Your task to perform on an android device: Is it going to rain today? Image 0: 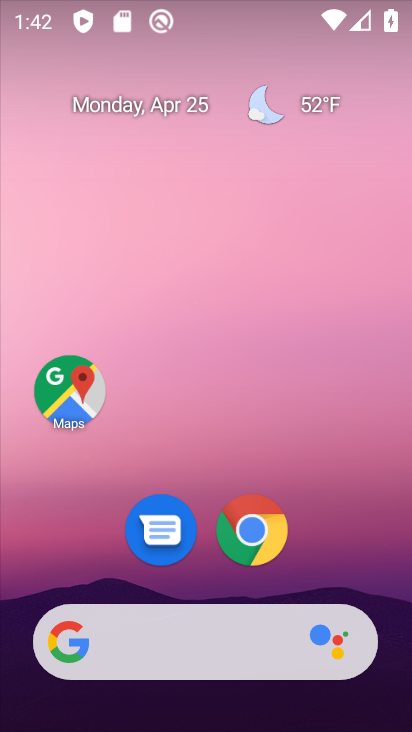
Step 0: drag from (372, 524) to (367, 106)
Your task to perform on an android device: Is it going to rain today? Image 1: 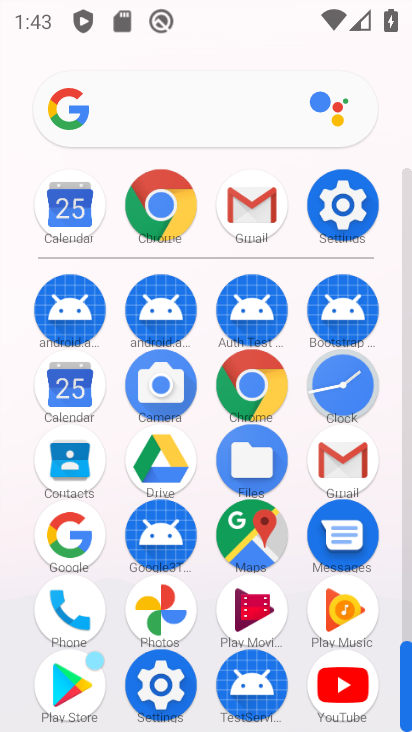
Step 1: click (240, 410)
Your task to perform on an android device: Is it going to rain today? Image 2: 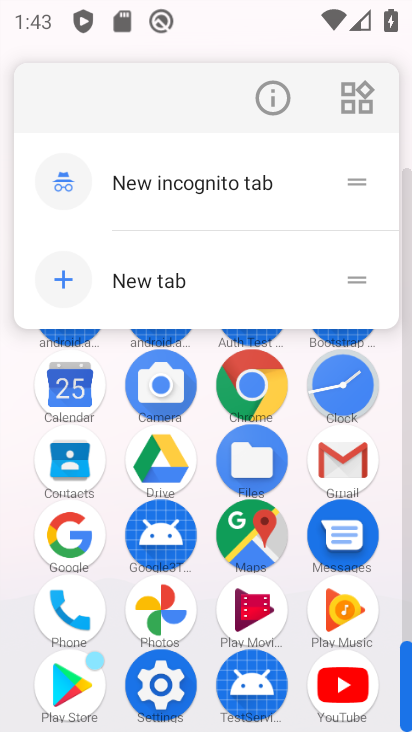
Step 2: click (244, 404)
Your task to perform on an android device: Is it going to rain today? Image 3: 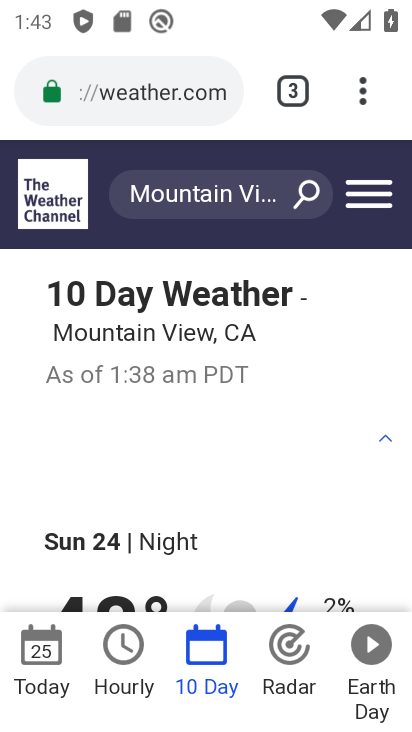
Step 3: drag from (364, 103) to (398, 618)
Your task to perform on an android device: Is it going to rain today? Image 4: 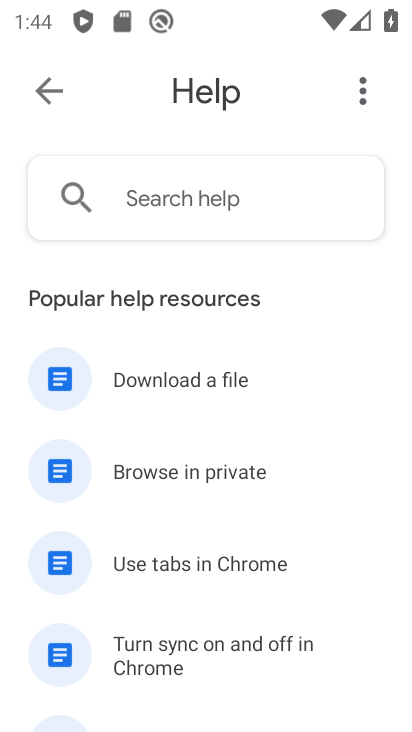
Step 4: press home button
Your task to perform on an android device: Is it going to rain today? Image 5: 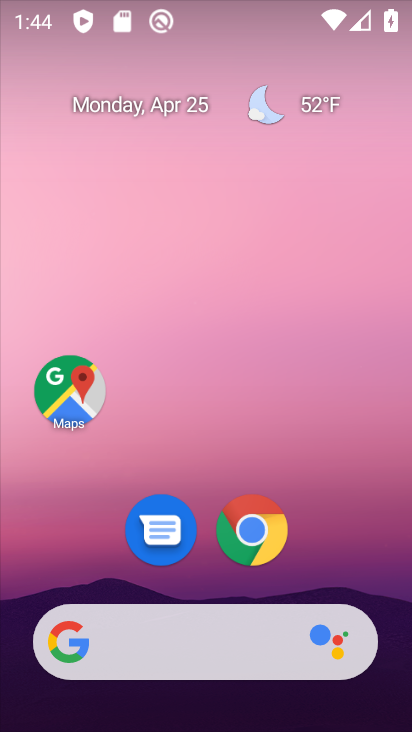
Step 5: drag from (350, 572) to (355, 177)
Your task to perform on an android device: Is it going to rain today? Image 6: 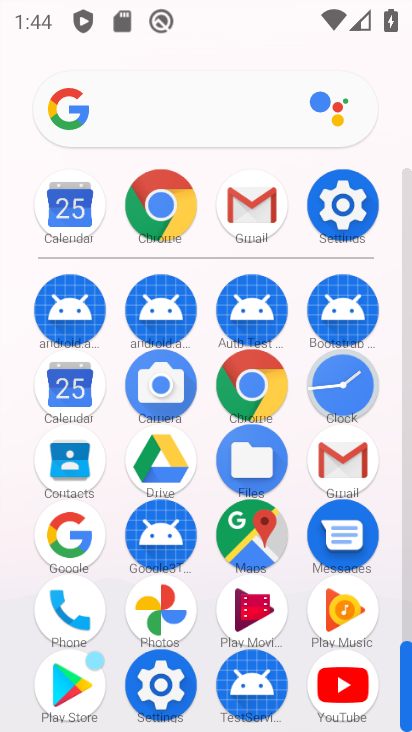
Step 6: click (235, 388)
Your task to perform on an android device: Is it going to rain today? Image 7: 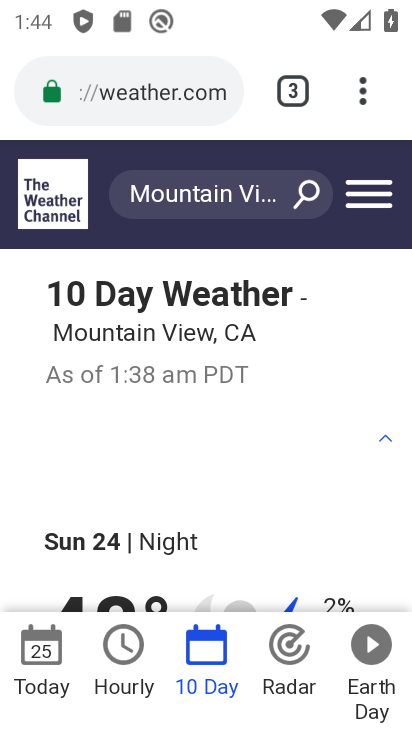
Step 7: click (195, 102)
Your task to perform on an android device: Is it going to rain today? Image 8: 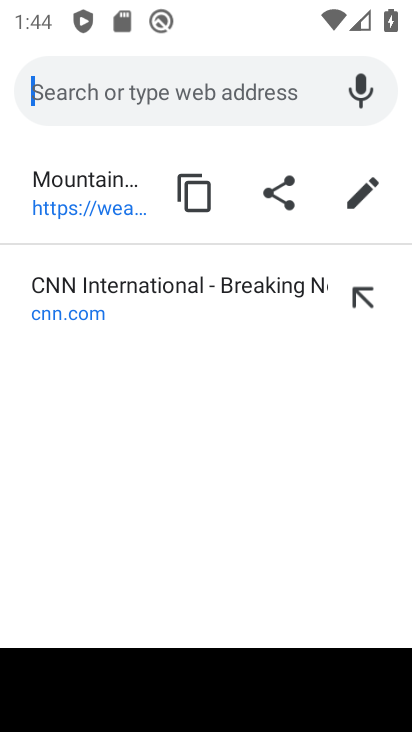
Step 8: type "is it going to rain today"
Your task to perform on an android device: Is it going to rain today? Image 9: 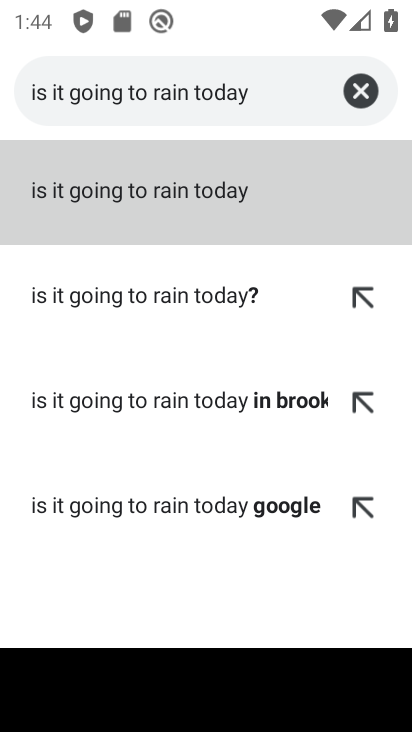
Step 9: click (76, 193)
Your task to perform on an android device: Is it going to rain today? Image 10: 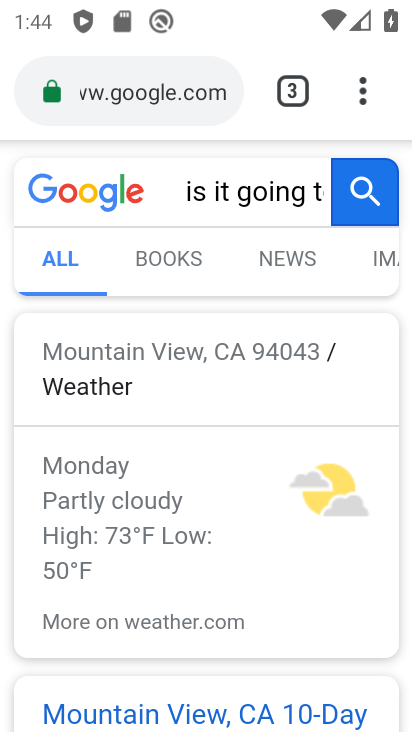
Step 10: drag from (153, 655) to (171, 327)
Your task to perform on an android device: Is it going to rain today? Image 11: 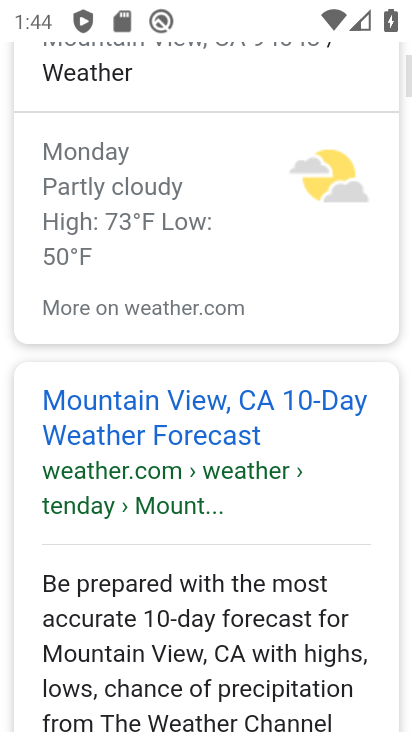
Step 11: click (195, 392)
Your task to perform on an android device: Is it going to rain today? Image 12: 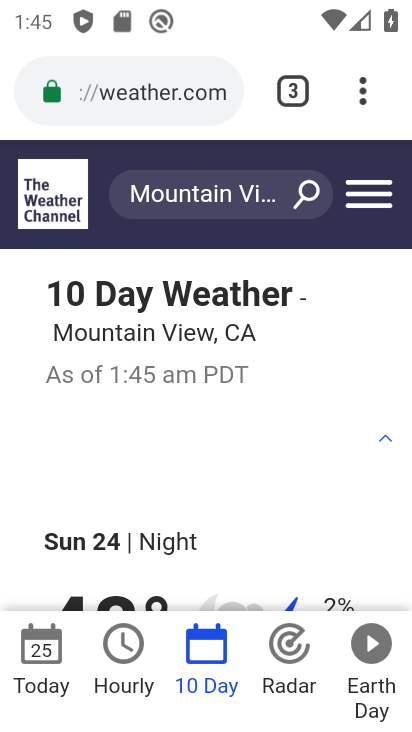
Step 12: task complete